Your task to perform on an android device: Play the last video I watched on Youtube Image 0: 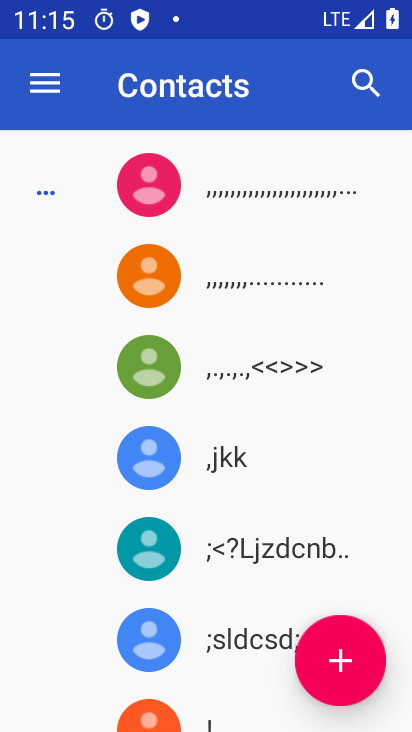
Step 0: press home button
Your task to perform on an android device: Play the last video I watched on Youtube Image 1: 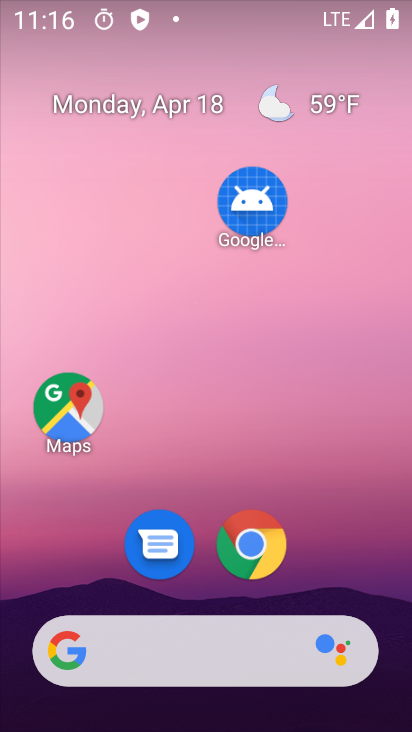
Step 1: drag from (285, 564) to (313, 237)
Your task to perform on an android device: Play the last video I watched on Youtube Image 2: 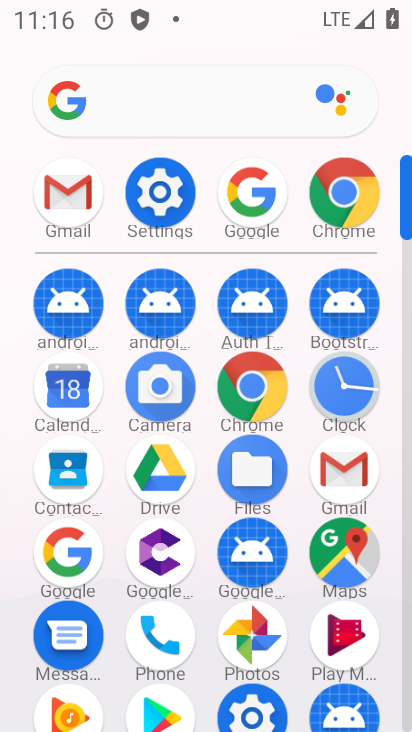
Step 2: drag from (278, 611) to (272, 112)
Your task to perform on an android device: Play the last video I watched on Youtube Image 3: 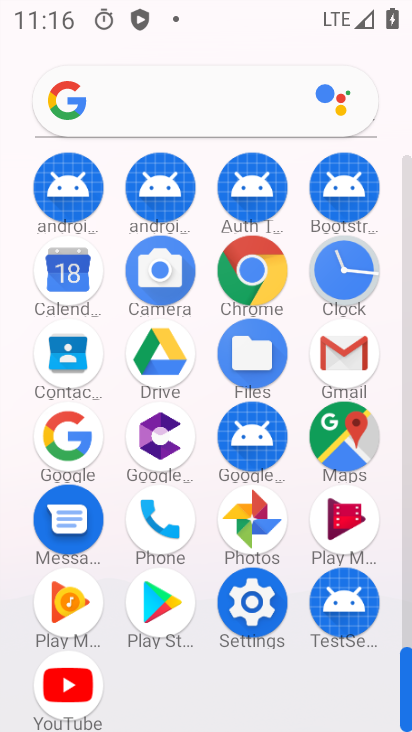
Step 3: click (71, 668)
Your task to perform on an android device: Play the last video I watched on Youtube Image 4: 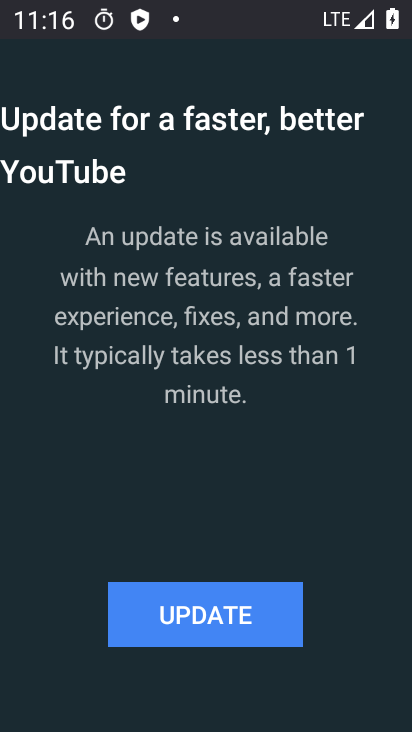
Step 4: press back button
Your task to perform on an android device: Play the last video I watched on Youtube Image 5: 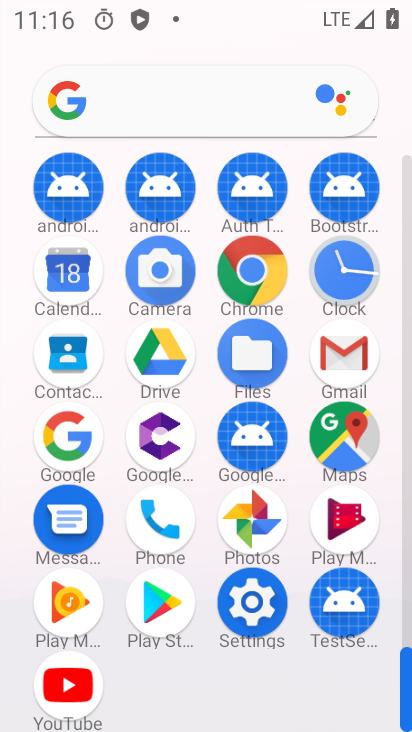
Step 5: click (82, 687)
Your task to perform on an android device: Play the last video I watched on Youtube Image 6: 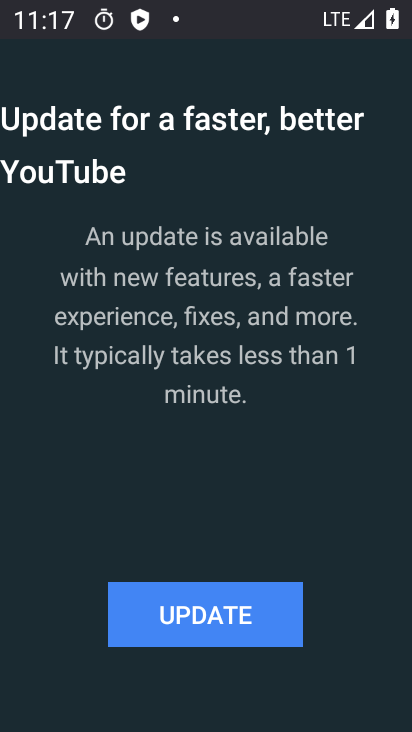
Step 6: task complete